Your task to perform on an android device: Open calendar and show me the fourth week of next month Image 0: 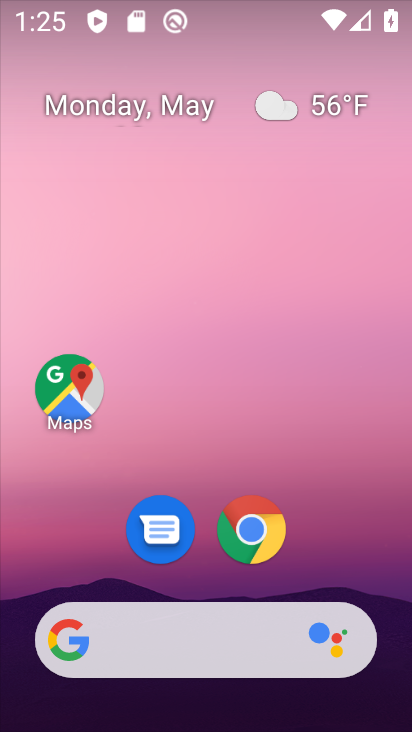
Step 0: drag from (342, 579) to (325, 28)
Your task to perform on an android device: Open calendar and show me the fourth week of next month Image 1: 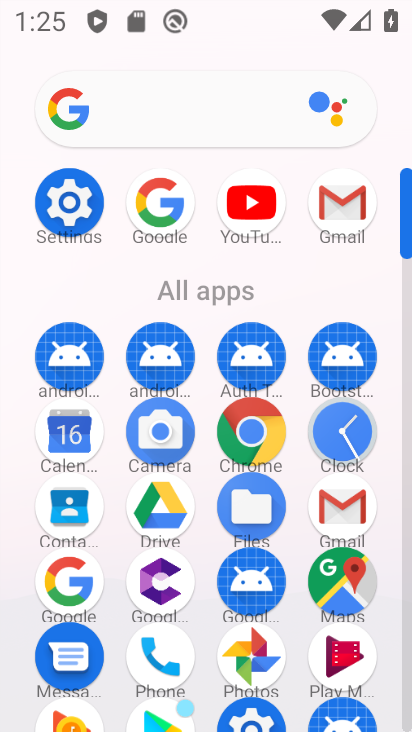
Step 1: click (72, 433)
Your task to perform on an android device: Open calendar and show me the fourth week of next month Image 2: 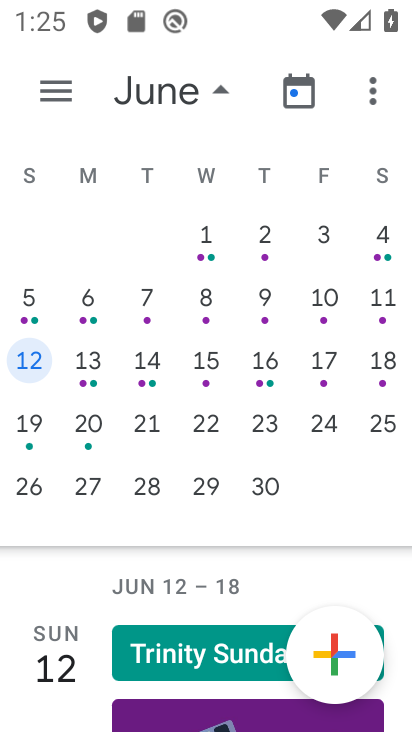
Step 2: click (39, 424)
Your task to perform on an android device: Open calendar and show me the fourth week of next month Image 3: 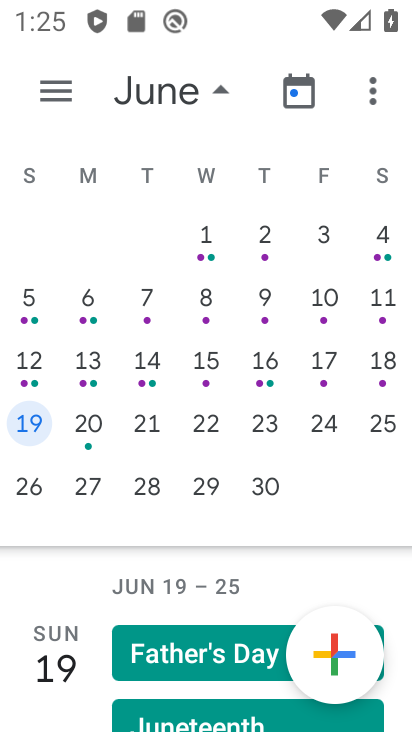
Step 3: task complete